Your task to perform on an android device: Open ESPN.com Image 0: 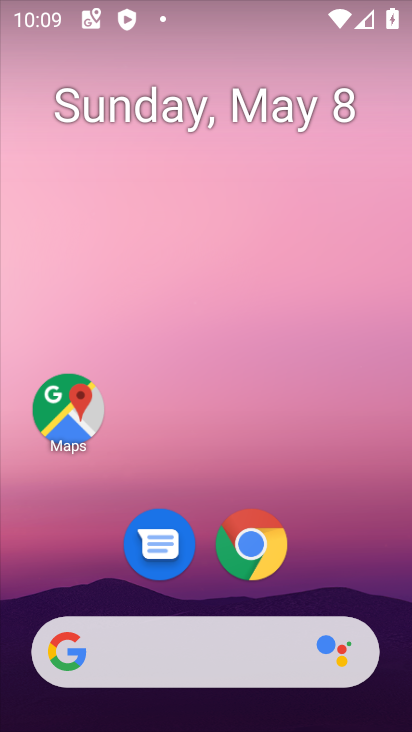
Step 0: click (235, 545)
Your task to perform on an android device: Open ESPN.com Image 1: 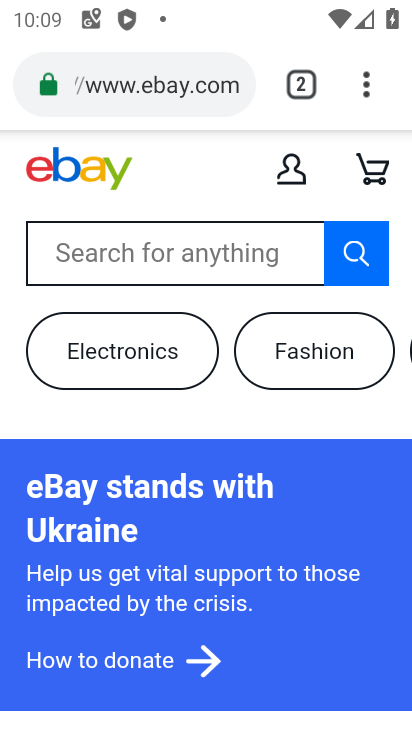
Step 1: click (232, 92)
Your task to perform on an android device: Open ESPN.com Image 2: 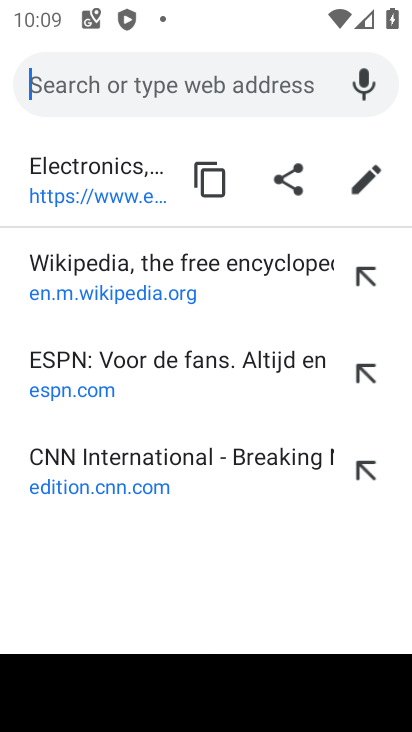
Step 2: click (191, 361)
Your task to perform on an android device: Open ESPN.com Image 3: 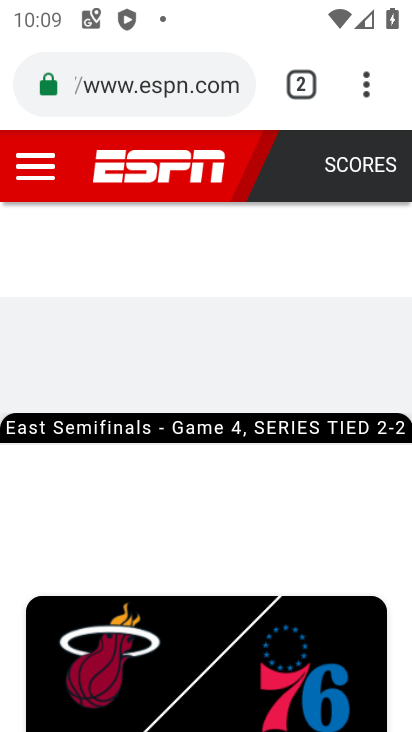
Step 3: task complete